Your task to perform on an android device: turn on improve location accuracy Image 0: 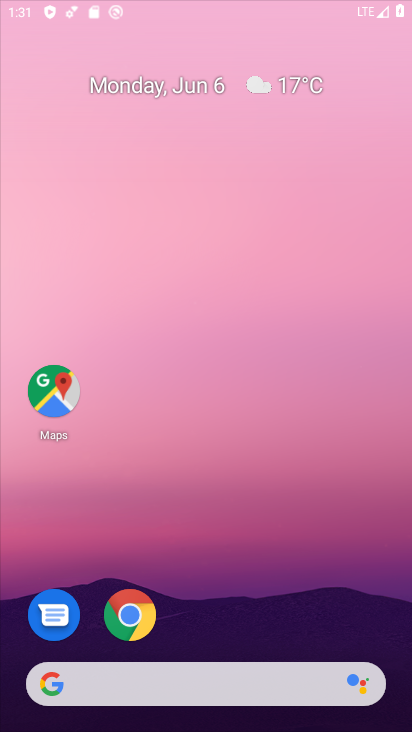
Step 0: drag from (141, 618) to (203, 206)
Your task to perform on an android device: turn on improve location accuracy Image 1: 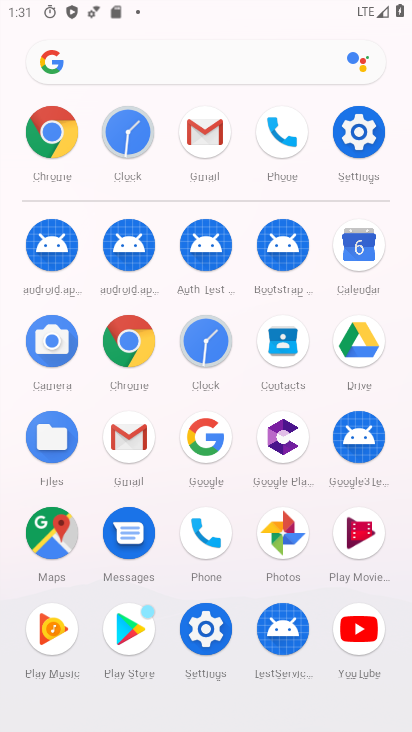
Step 1: click (364, 116)
Your task to perform on an android device: turn on improve location accuracy Image 2: 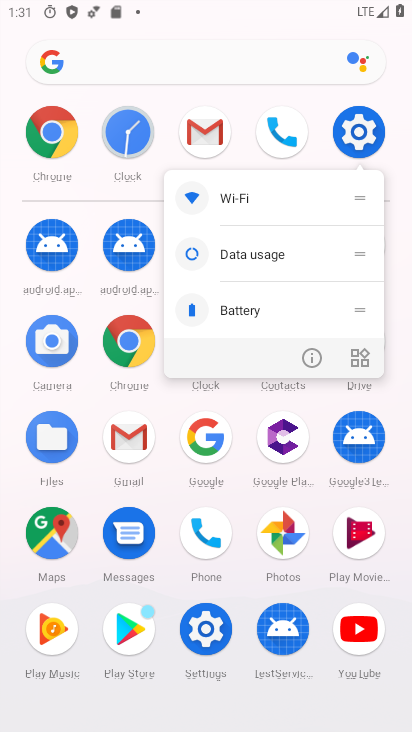
Step 2: click (317, 373)
Your task to perform on an android device: turn on improve location accuracy Image 3: 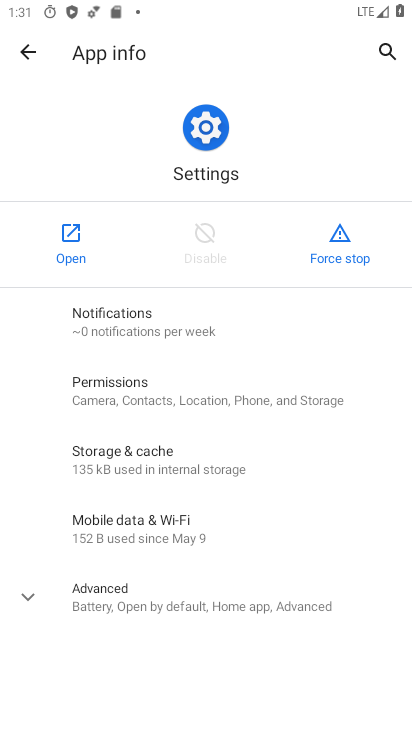
Step 3: click (86, 276)
Your task to perform on an android device: turn on improve location accuracy Image 4: 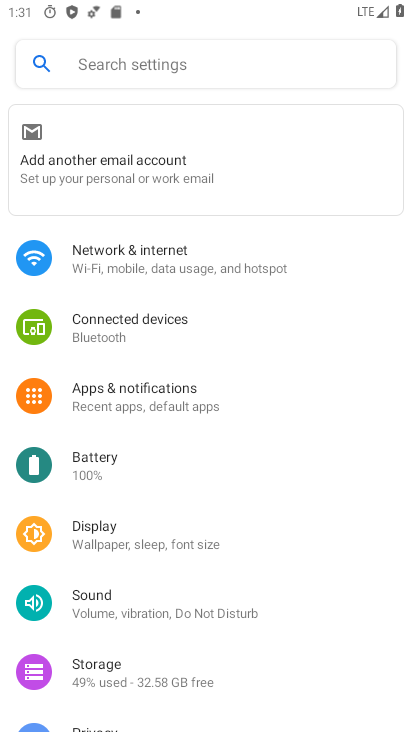
Step 4: drag from (200, 530) to (226, 331)
Your task to perform on an android device: turn on improve location accuracy Image 5: 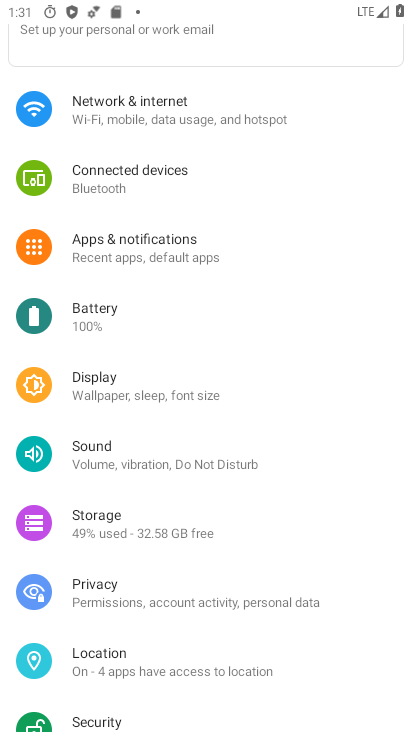
Step 5: drag from (167, 594) to (168, 250)
Your task to perform on an android device: turn on improve location accuracy Image 6: 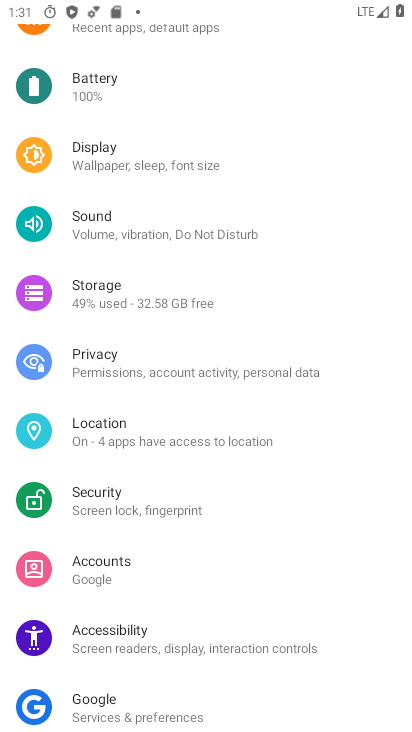
Step 6: drag from (208, 608) to (216, 330)
Your task to perform on an android device: turn on improve location accuracy Image 7: 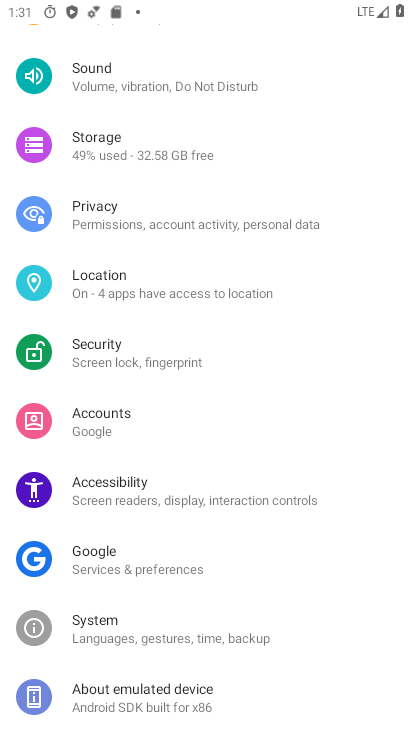
Step 7: drag from (171, 666) to (208, 280)
Your task to perform on an android device: turn on improve location accuracy Image 8: 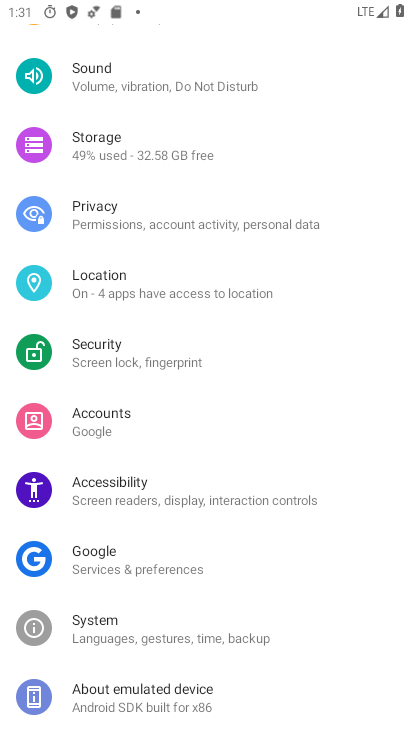
Step 8: drag from (228, 103) to (206, 666)
Your task to perform on an android device: turn on improve location accuracy Image 9: 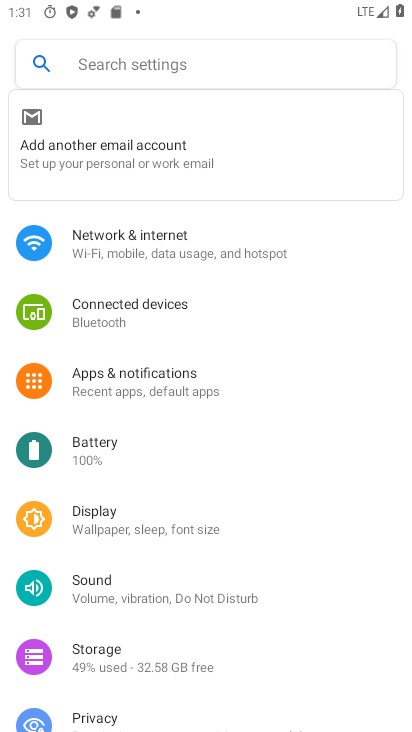
Step 9: drag from (172, 518) to (211, 245)
Your task to perform on an android device: turn on improve location accuracy Image 10: 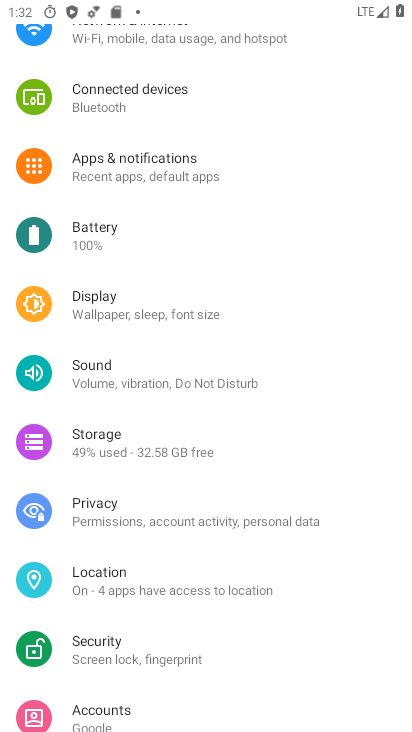
Step 10: click (180, 179)
Your task to perform on an android device: turn on improve location accuracy Image 11: 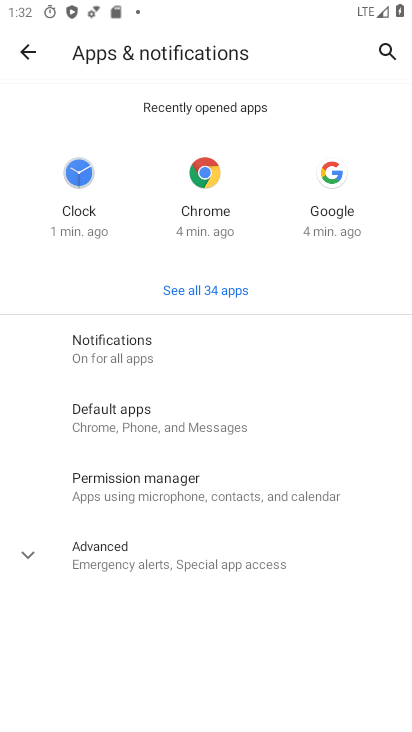
Step 11: drag from (248, 562) to (257, 109)
Your task to perform on an android device: turn on improve location accuracy Image 12: 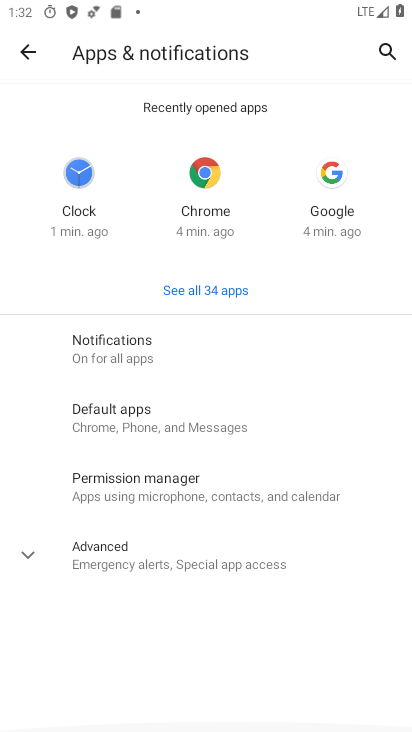
Step 12: drag from (254, 96) to (258, 536)
Your task to perform on an android device: turn on improve location accuracy Image 13: 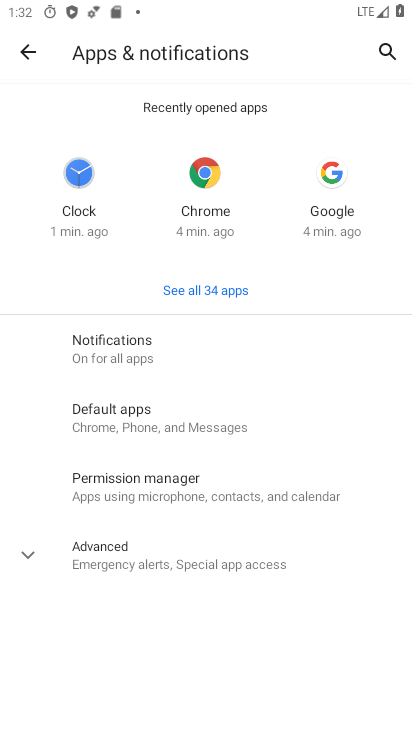
Step 13: drag from (227, 573) to (264, 242)
Your task to perform on an android device: turn on improve location accuracy Image 14: 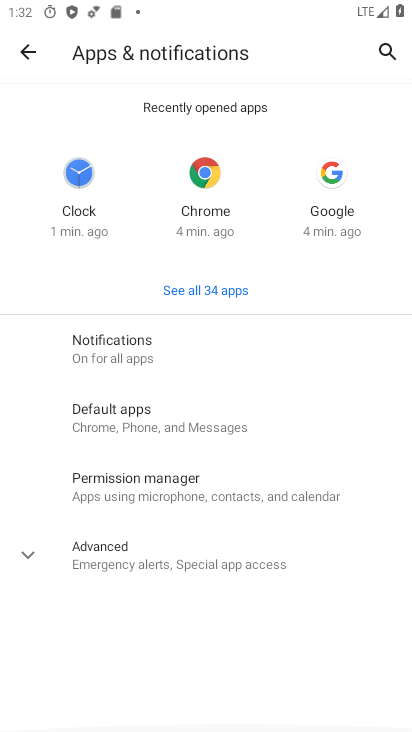
Step 14: drag from (271, 192) to (273, 592)
Your task to perform on an android device: turn on improve location accuracy Image 15: 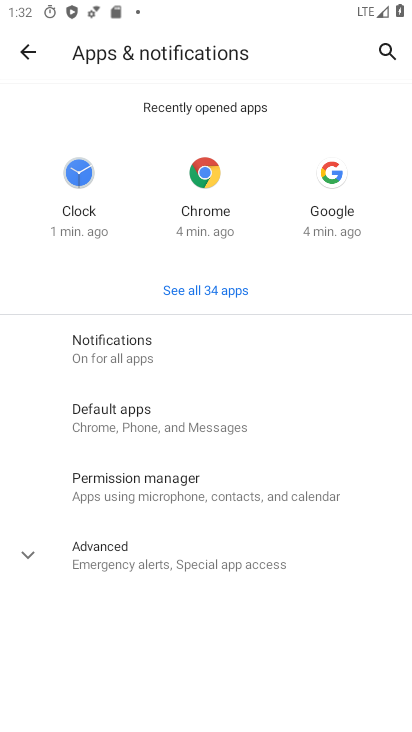
Step 15: click (195, 333)
Your task to perform on an android device: turn on improve location accuracy Image 16: 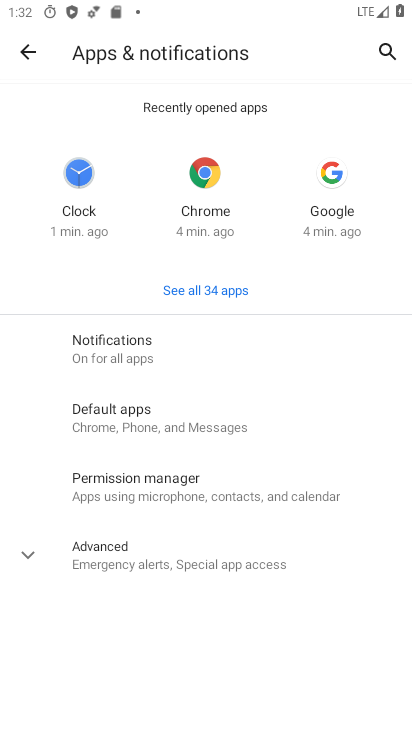
Step 16: click (195, 333)
Your task to perform on an android device: turn on improve location accuracy Image 17: 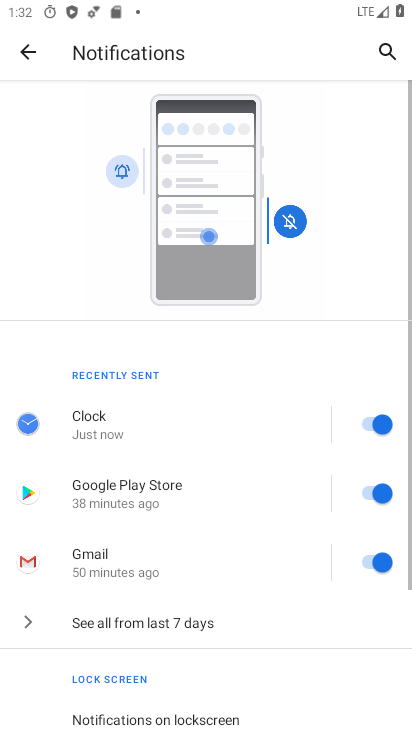
Step 17: drag from (240, 599) to (257, 209)
Your task to perform on an android device: turn on improve location accuracy Image 18: 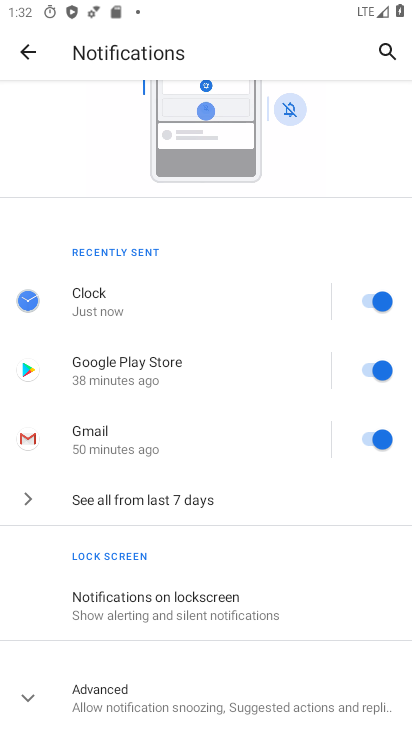
Step 18: click (116, 684)
Your task to perform on an android device: turn on improve location accuracy Image 19: 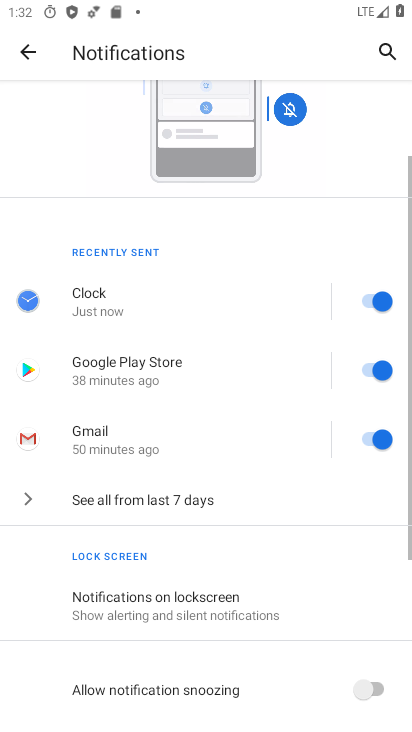
Step 19: drag from (189, 669) to (229, 11)
Your task to perform on an android device: turn on improve location accuracy Image 20: 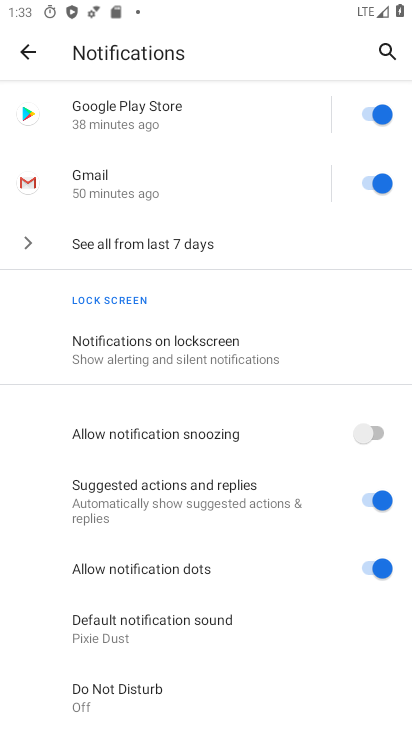
Step 20: click (27, 58)
Your task to perform on an android device: turn on improve location accuracy Image 21: 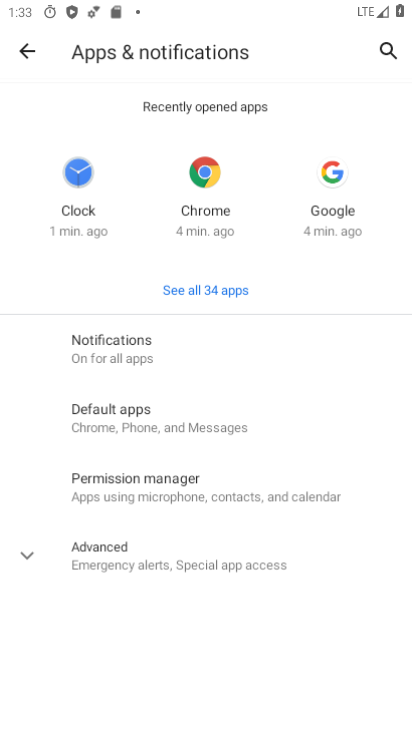
Step 21: drag from (238, 584) to (260, 86)
Your task to perform on an android device: turn on improve location accuracy Image 22: 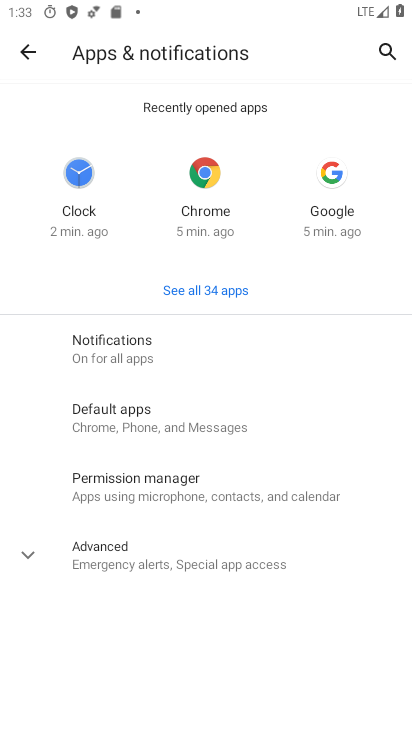
Step 22: click (30, 50)
Your task to perform on an android device: turn on improve location accuracy Image 23: 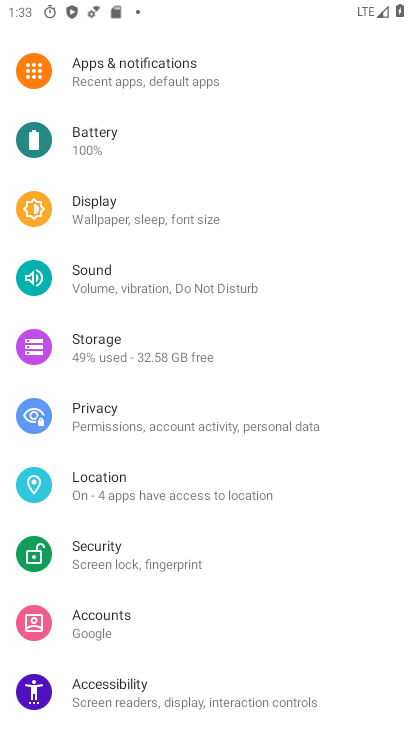
Step 23: drag from (193, 488) to (193, 119)
Your task to perform on an android device: turn on improve location accuracy Image 24: 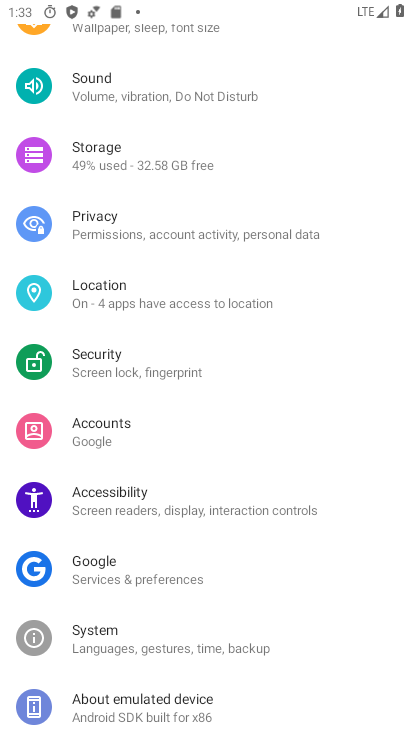
Step 24: click (120, 301)
Your task to perform on an android device: turn on improve location accuracy Image 25: 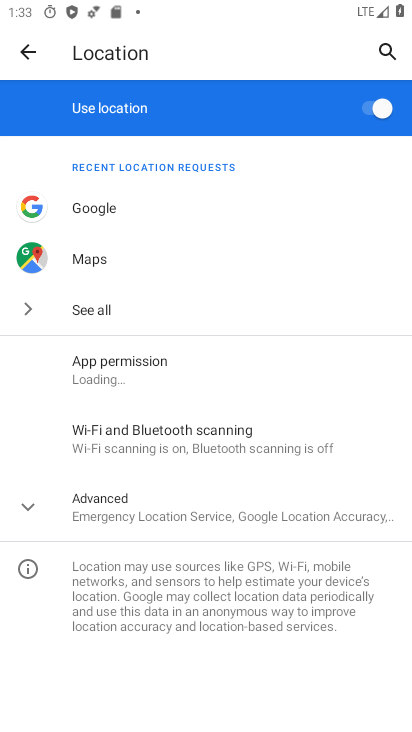
Step 25: click (183, 520)
Your task to perform on an android device: turn on improve location accuracy Image 26: 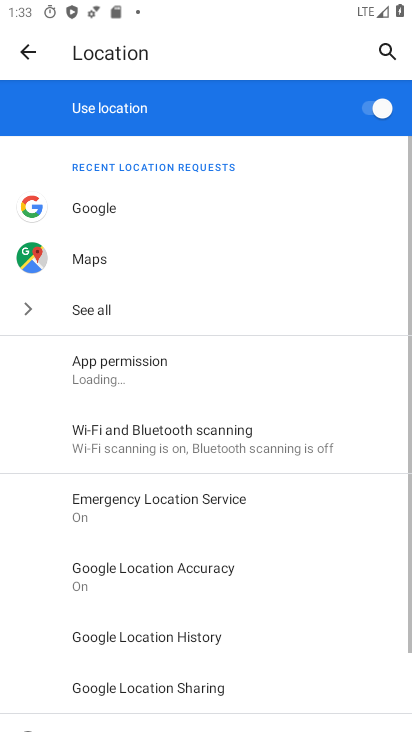
Step 26: drag from (213, 536) to (223, 152)
Your task to perform on an android device: turn on improve location accuracy Image 27: 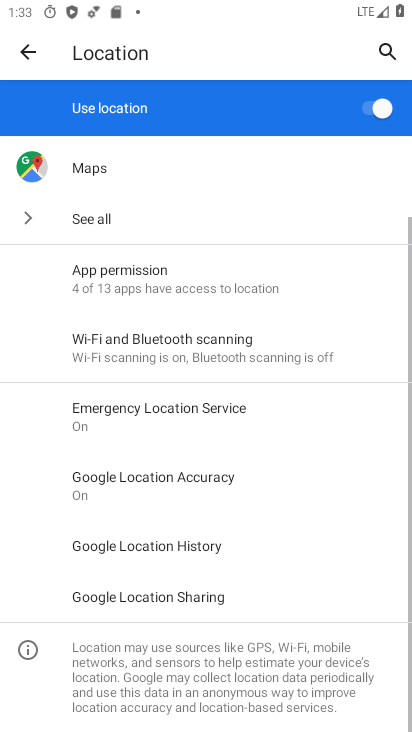
Step 27: click (208, 486)
Your task to perform on an android device: turn on improve location accuracy Image 28: 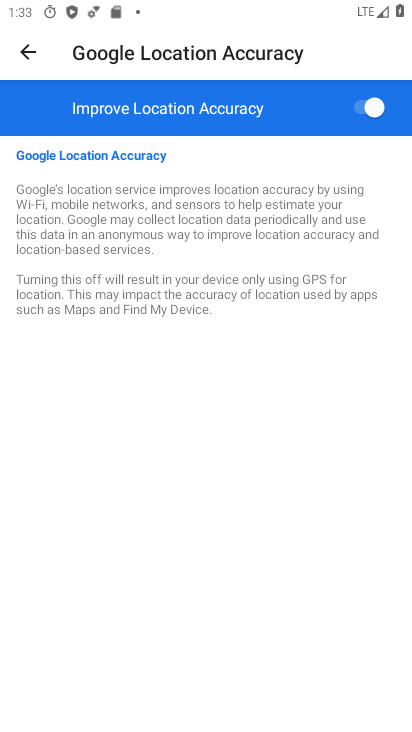
Step 28: task complete